Your task to perform on an android device: Search for dell xps on bestbuy.com, select the first entry, and add it to the cart. Image 0: 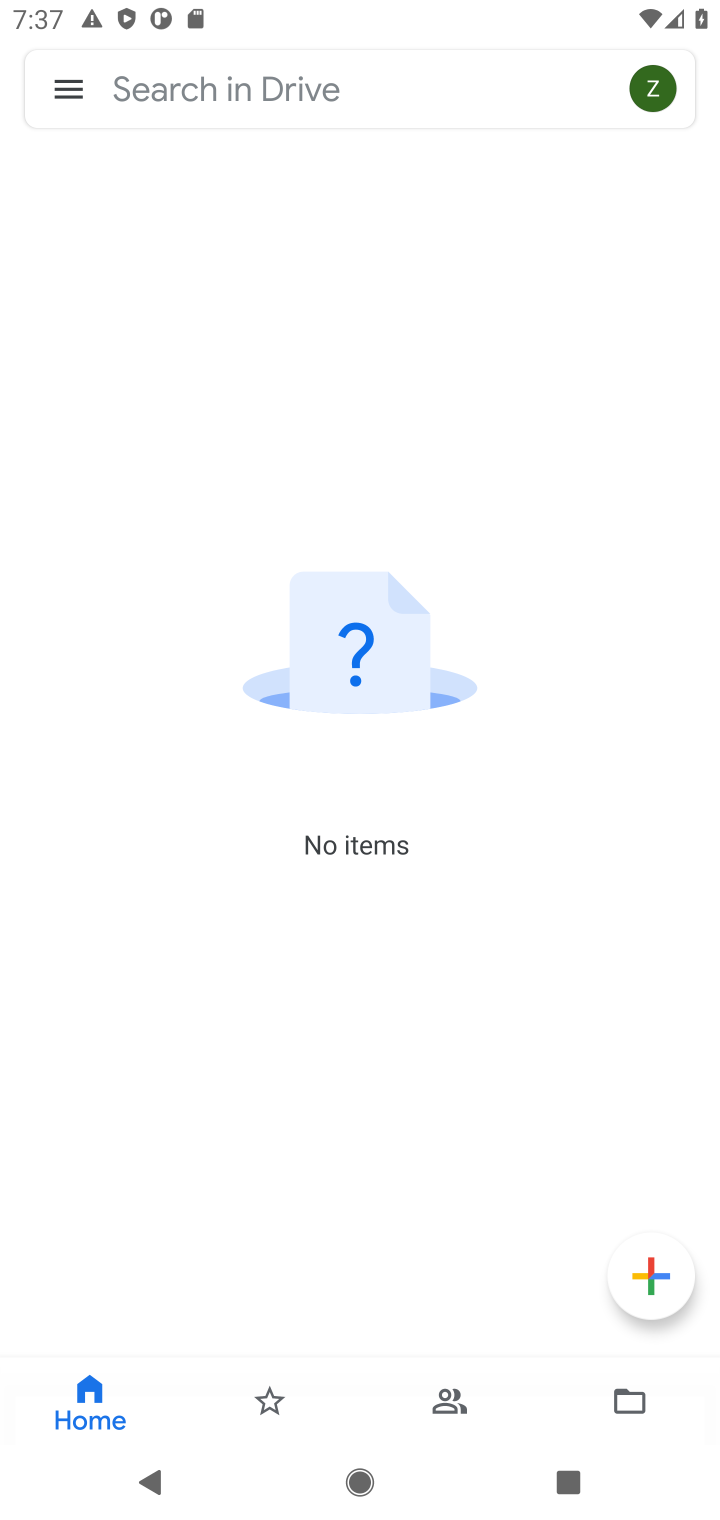
Step 0: press home button
Your task to perform on an android device: Search for dell xps on bestbuy.com, select the first entry, and add it to the cart. Image 1: 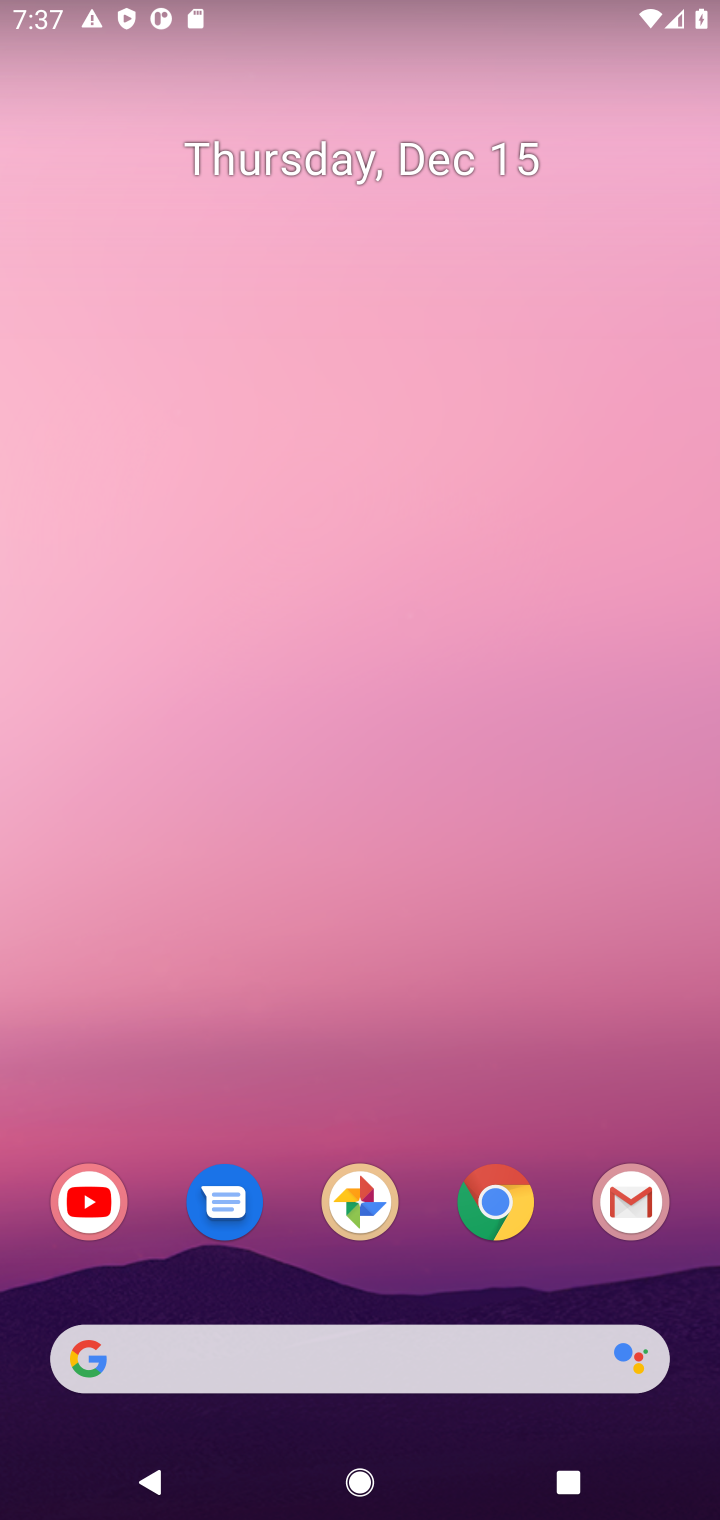
Step 1: click (487, 1195)
Your task to perform on an android device: Search for dell xps on bestbuy.com, select the first entry, and add it to the cart. Image 2: 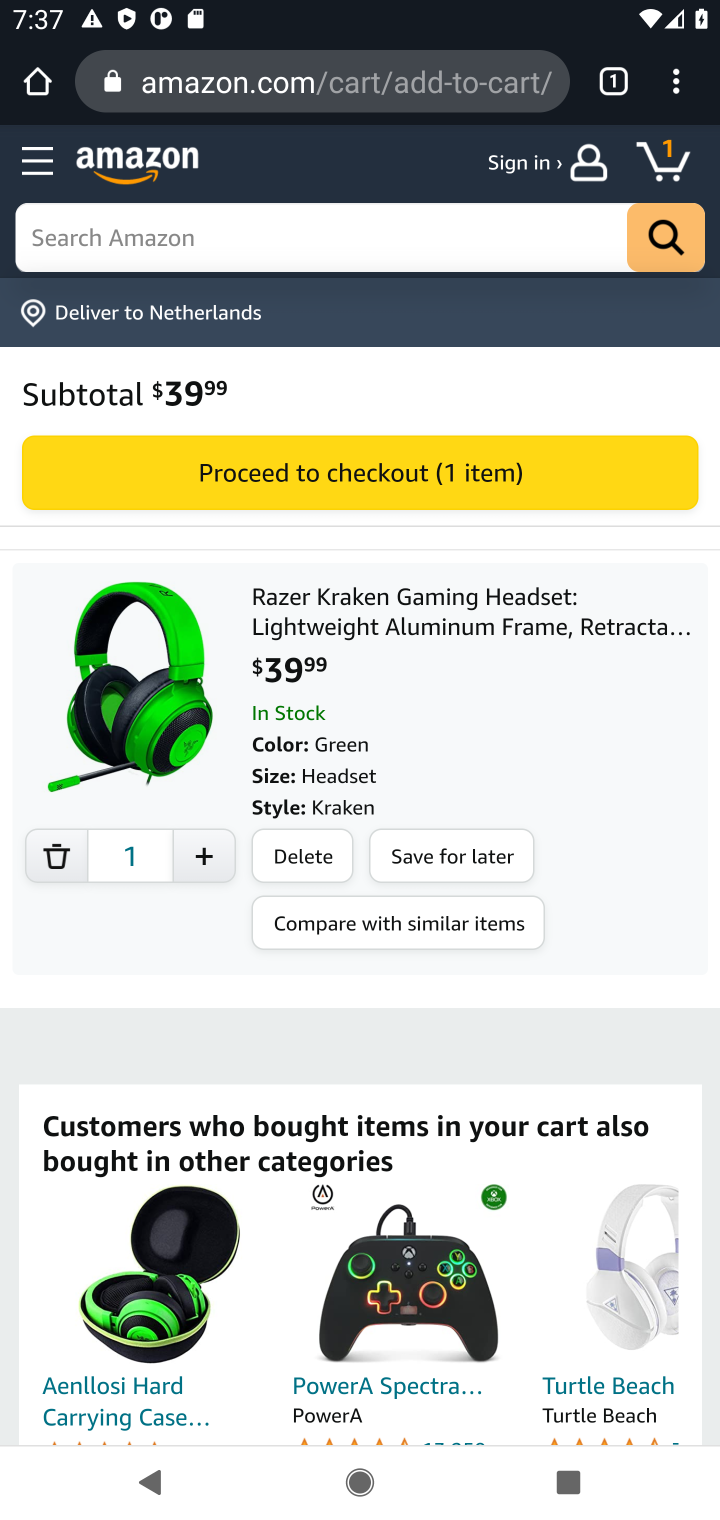
Step 2: click (283, 89)
Your task to perform on an android device: Search for dell xps on bestbuy.com, select the first entry, and add it to the cart. Image 3: 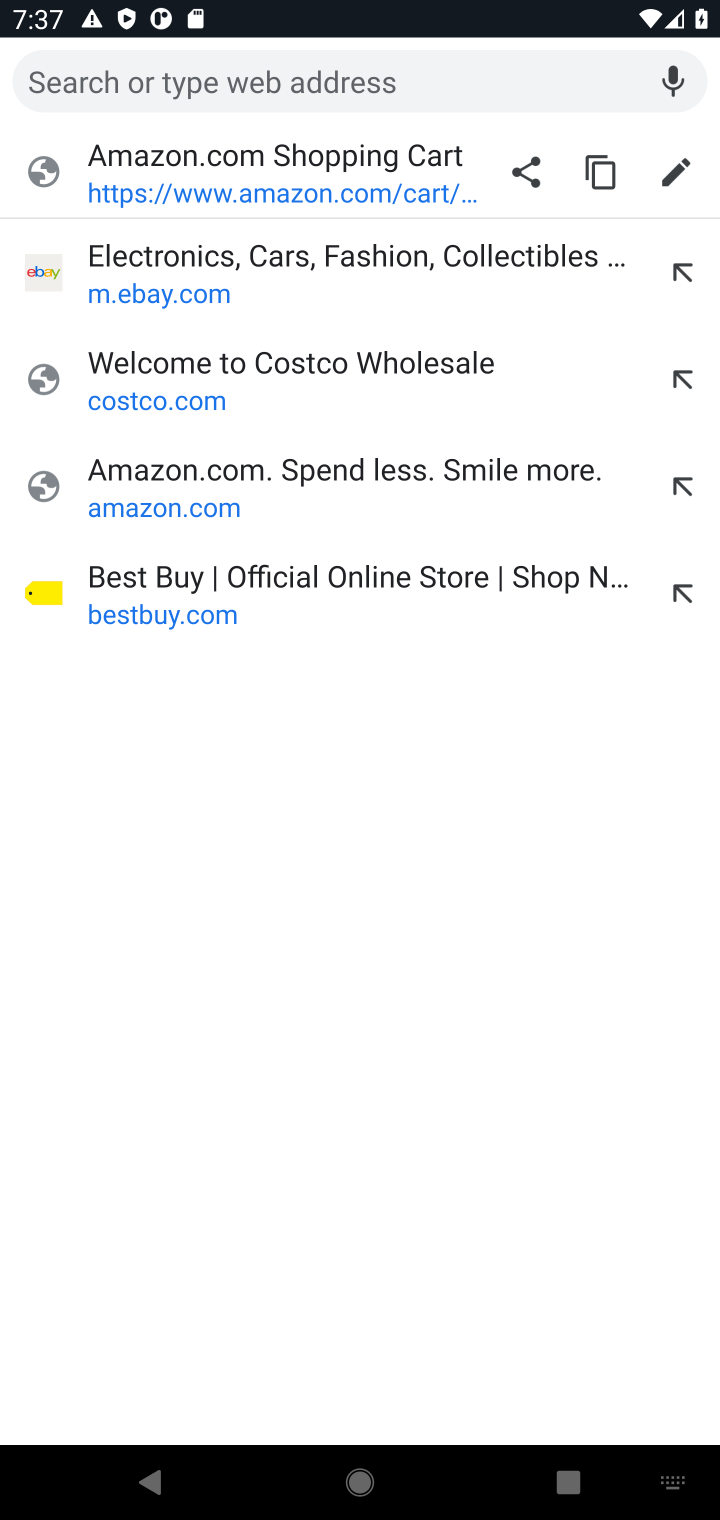
Step 3: click (151, 587)
Your task to perform on an android device: Search for dell xps on bestbuy.com, select the first entry, and add it to the cart. Image 4: 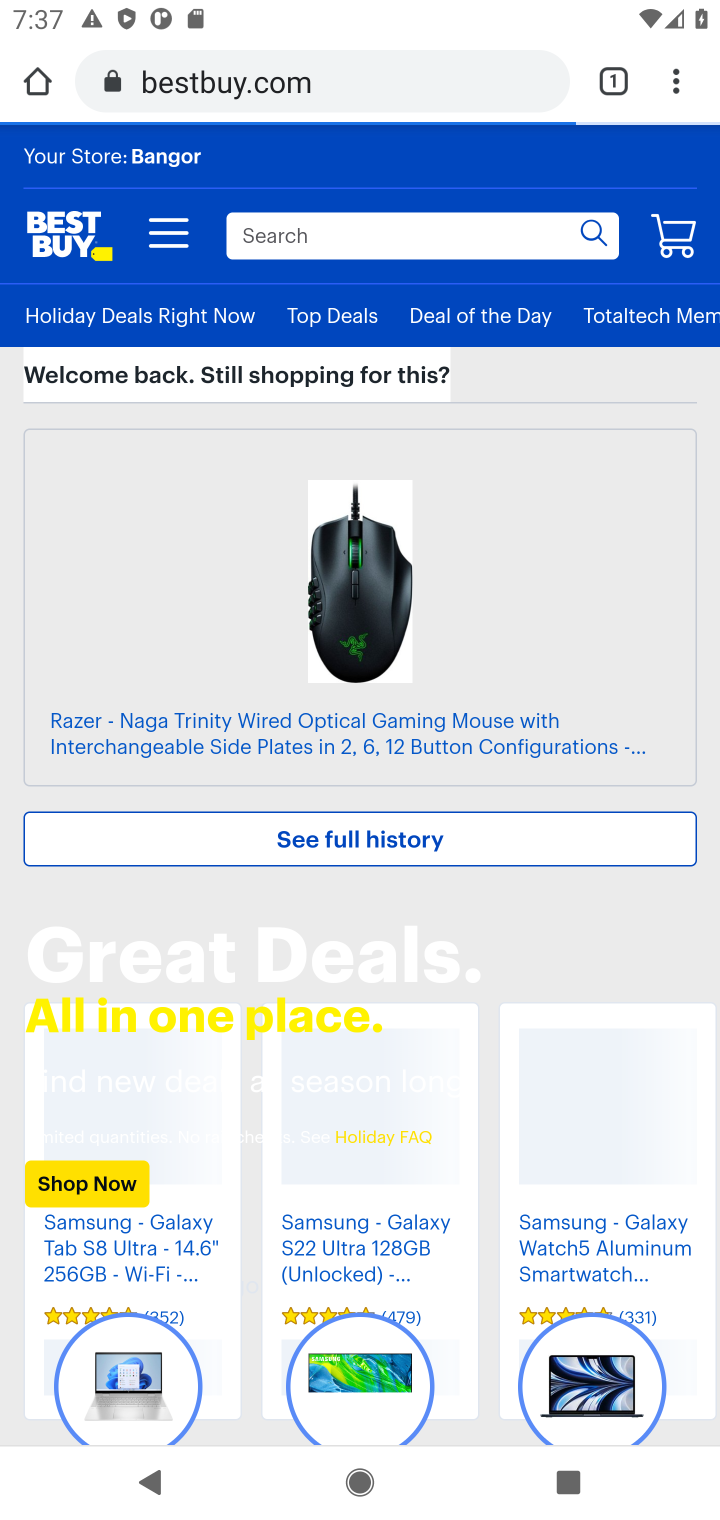
Step 4: click (263, 232)
Your task to perform on an android device: Search for dell xps on bestbuy.com, select the first entry, and add it to the cart. Image 5: 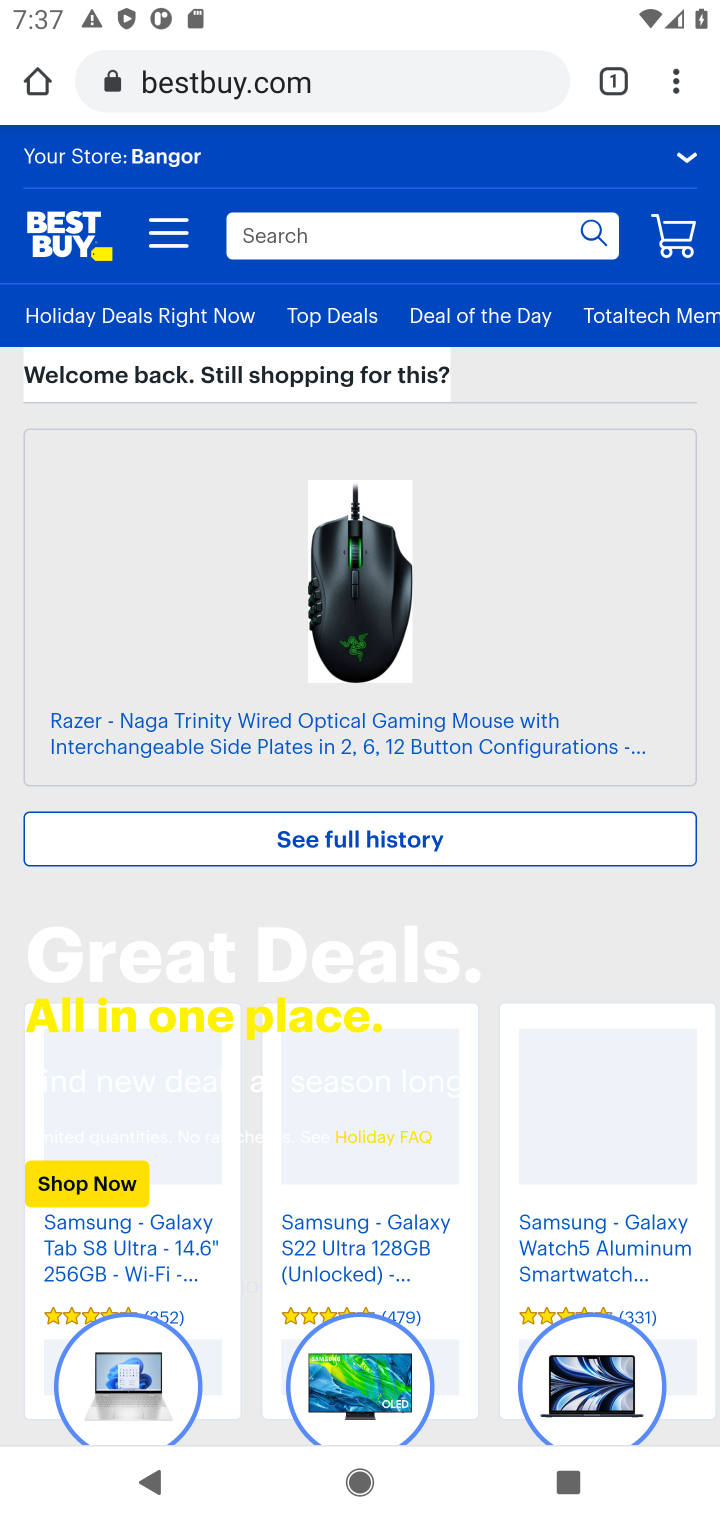
Step 5: click (281, 245)
Your task to perform on an android device: Search for dell xps on bestbuy.com, select the first entry, and add it to the cart. Image 6: 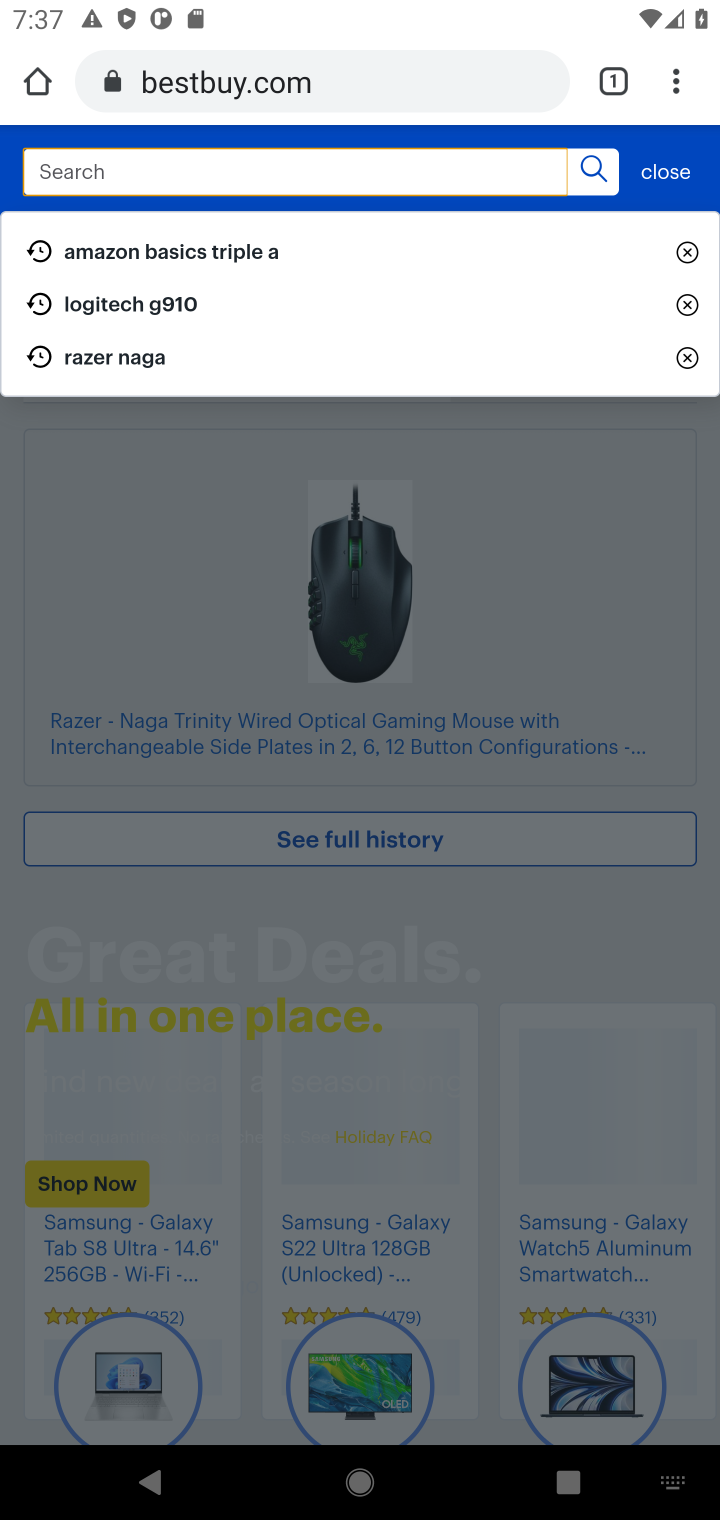
Step 6: type "dell xps"
Your task to perform on an android device: Search for dell xps on bestbuy.com, select the first entry, and add it to the cart. Image 7: 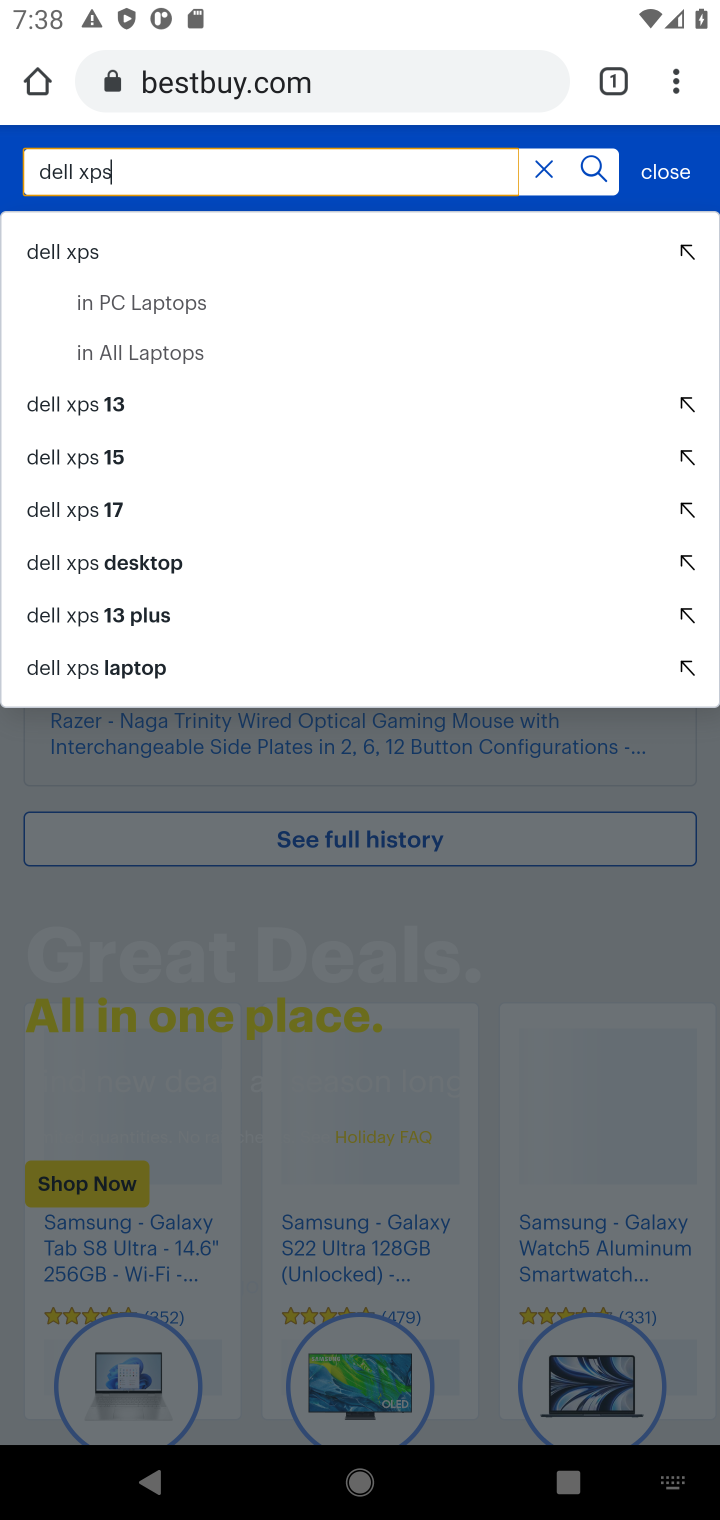
Step 7: click (36, 262)
Your task to perform on an android device: Search for dell xps on bestbuy.com, select the first entry, and add it to the cart. Image 8: 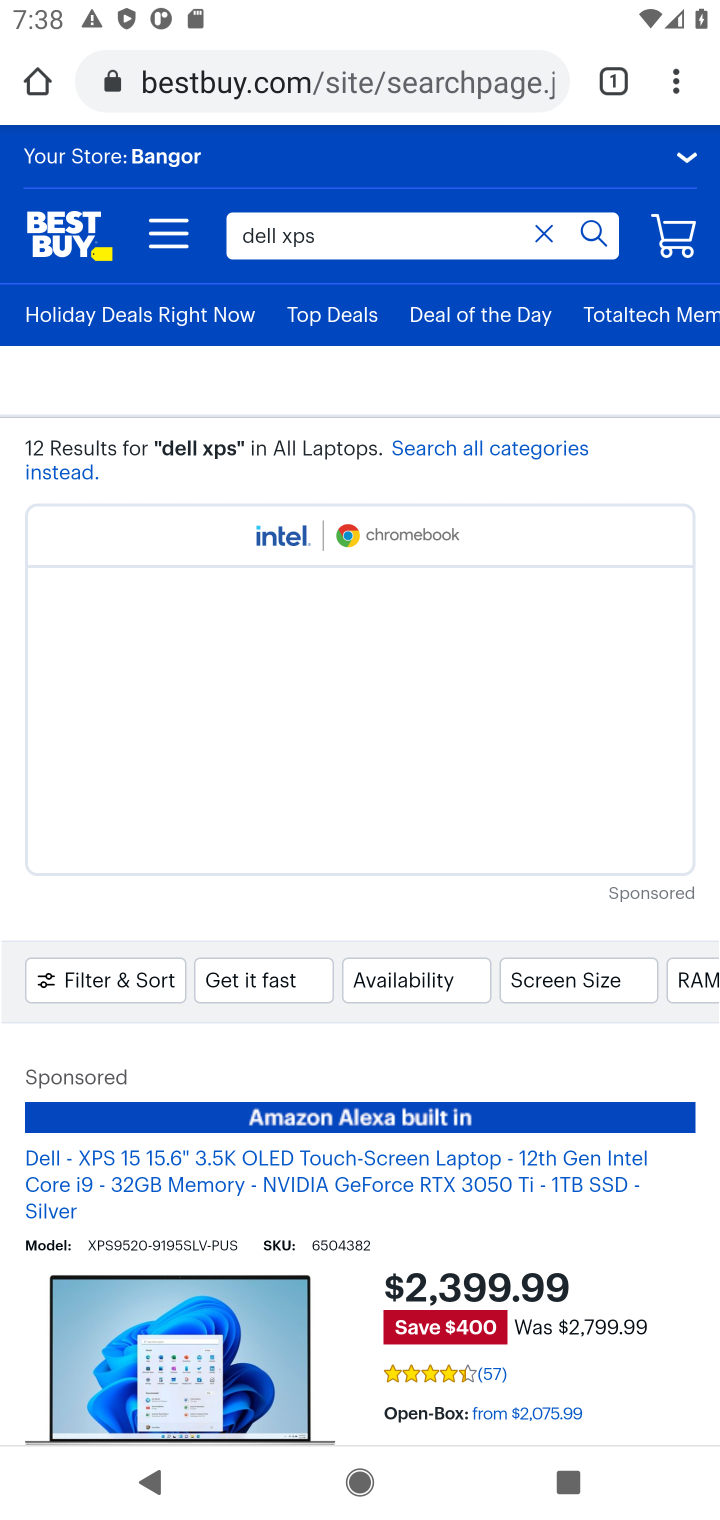
Step 8: drag from (281, 1020) to (245, 450)
Your task to perform on an android device: Search for dell xps on bestbuy.com, select the first entry, and add it to the cart. Image 9: 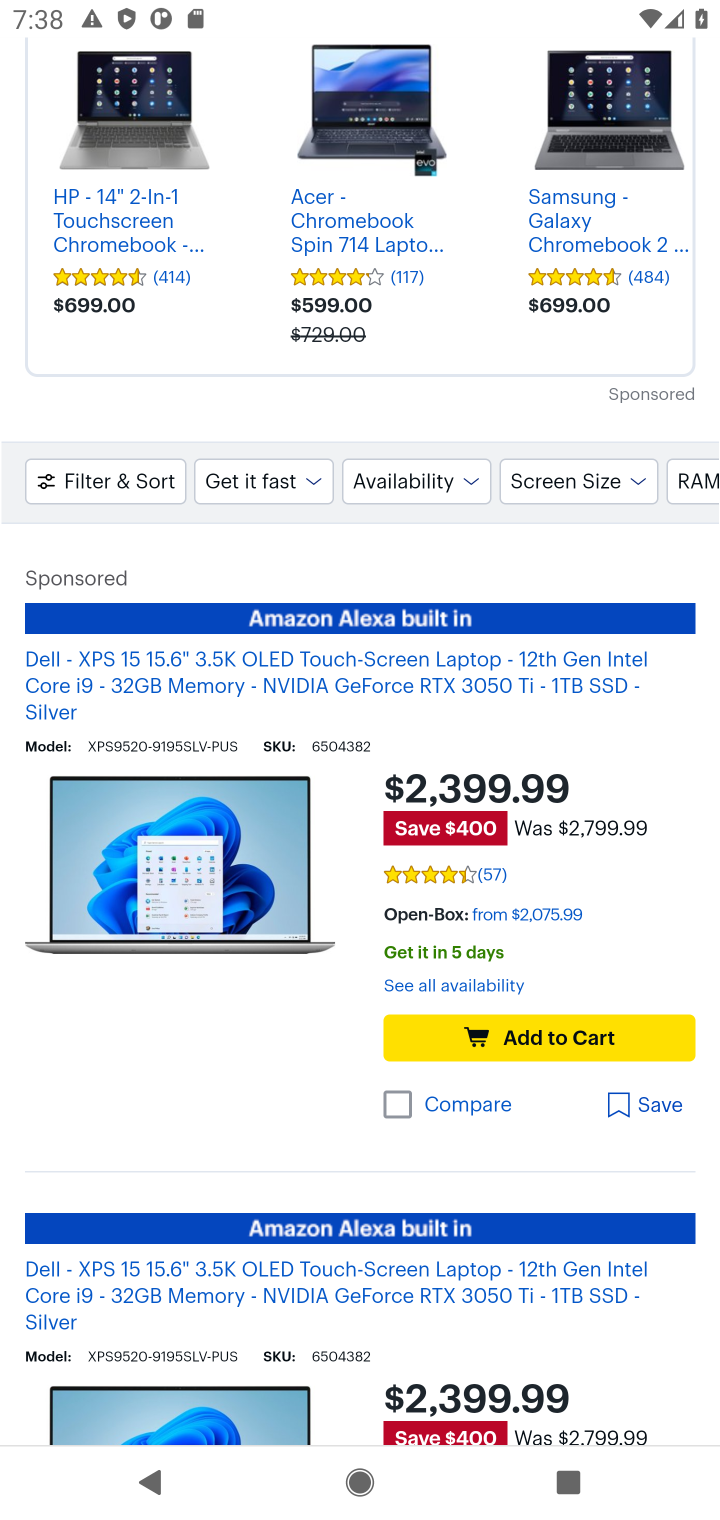
Step 9: click (543, 1024)
Your task to perform on an android device: Search for dell xps on bestbuy.com, select the first entry, and add it to the cart. Image 10: 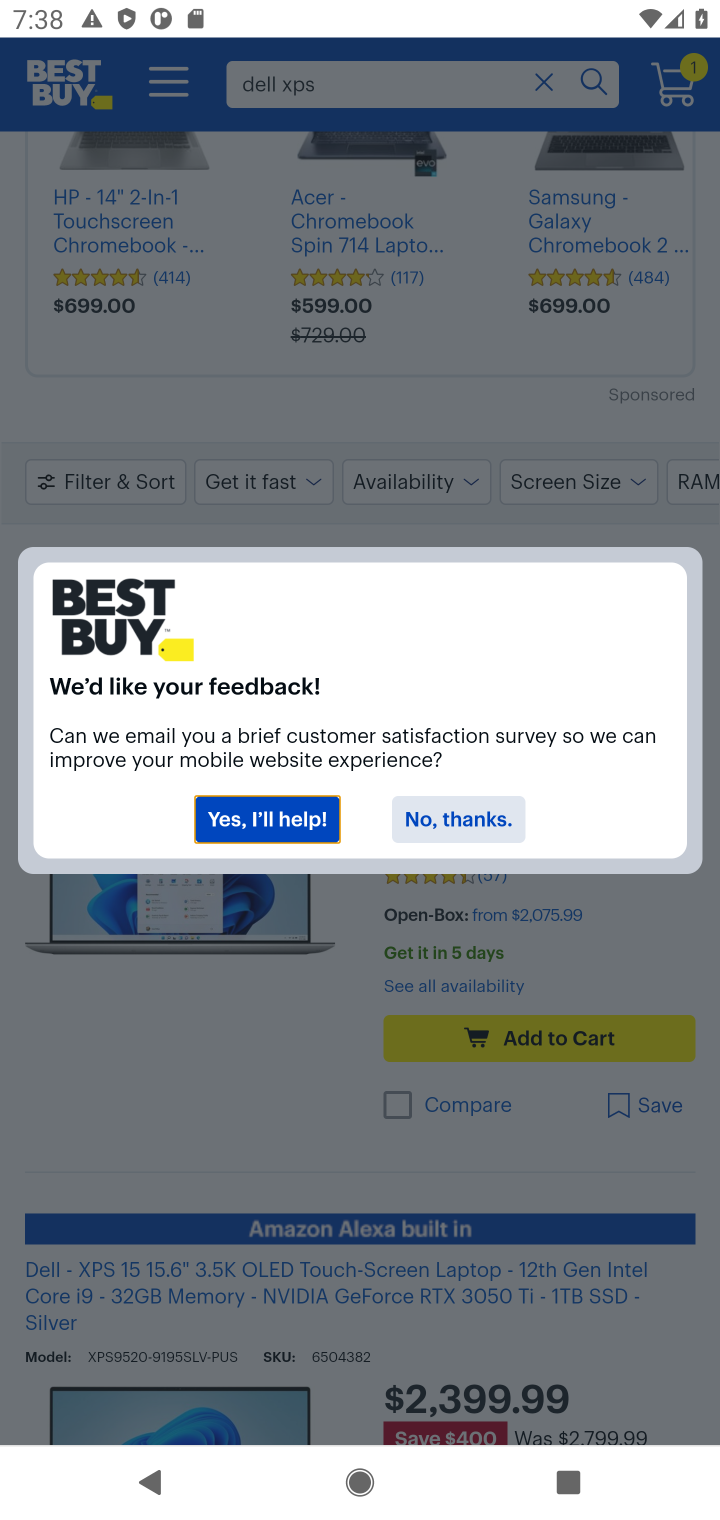
Step 10: click (420, 810)
Your task to perform on an android device: Search for dell xps on bestbuy.com, select the first entry, and add it to the cart. Image 11: 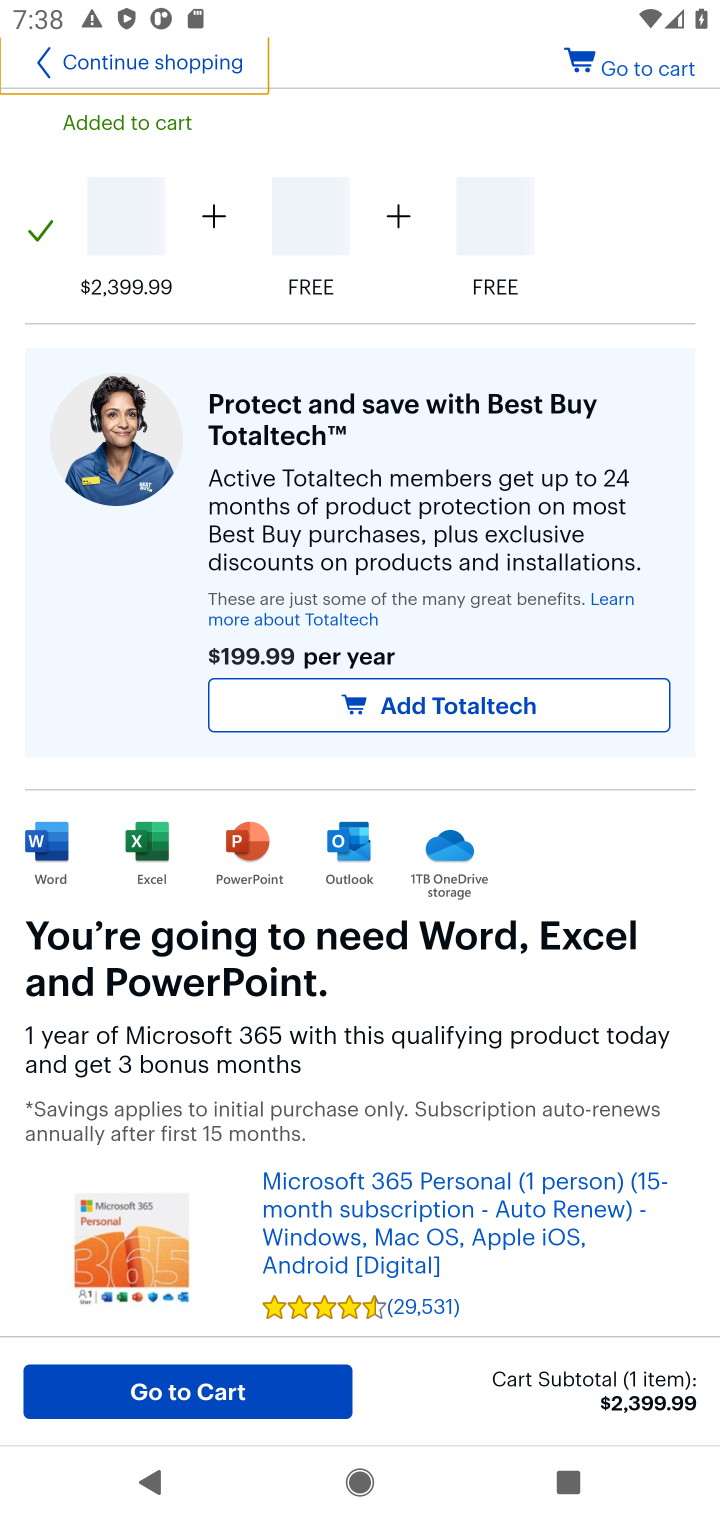
Step 11: task complete